Your task to perform on an android device: View the shopping cart on ebay. Add "bose soundsport free" to the cart on ebay Image 0: 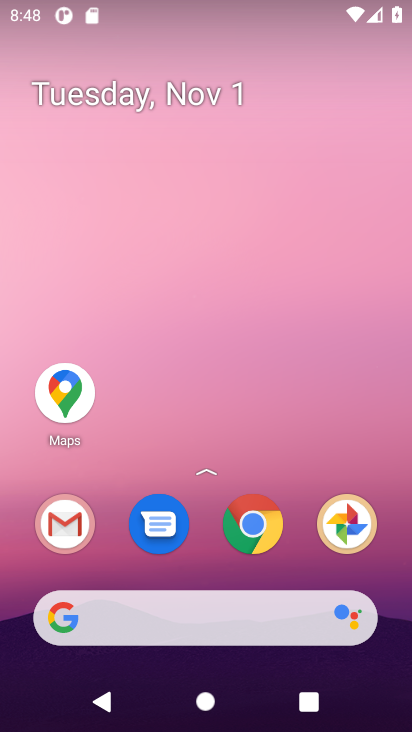
Step 0: press home button
Your task to perform on an android device: View the shopping cart on ebay. Add "bose soundsport free" to the cart on ebay Image 1: 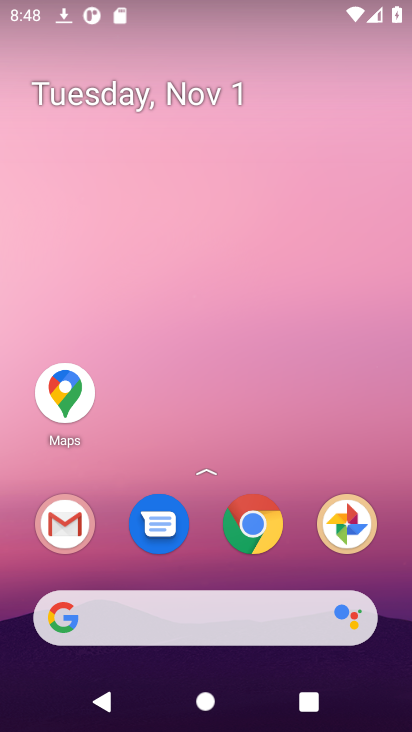
Step 1: click (92, 609)
Your task to perform on an android device: View the shopping cart on ebay. Add "bose soundsport free" to the cart on ebay Image 2: 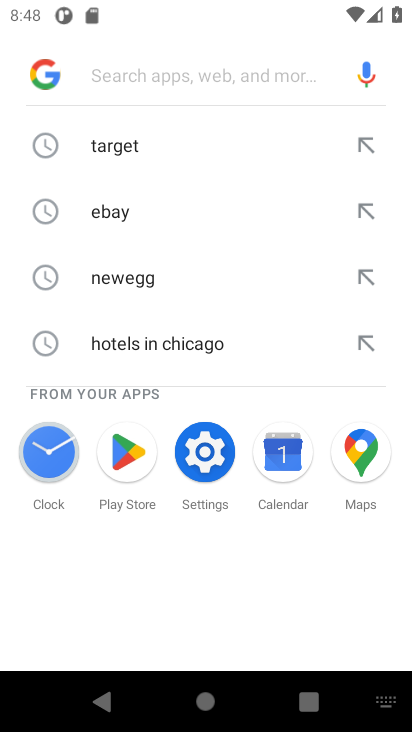
Step 2: click (132, 215)
Your task to perform on an android device: View the shopping cart on ebay. Add "bose soundsport free" to the cart on ebay Image 3: 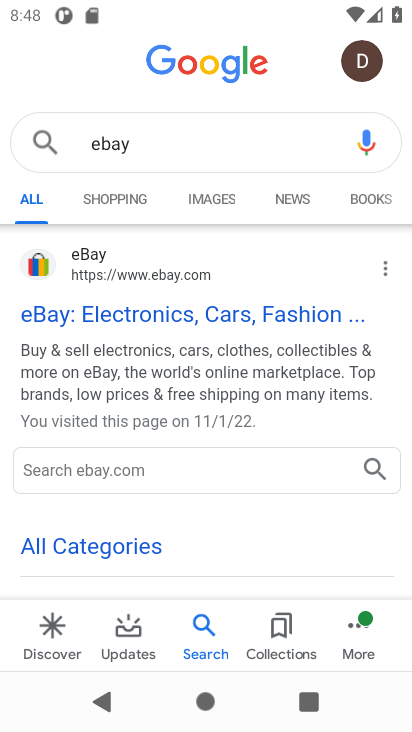
Step 3: click (230, 320)
Your task to perform on an android device: View the shopping cart on ebay. Add "bose soundsport free" to the cart on ebay Image 4: 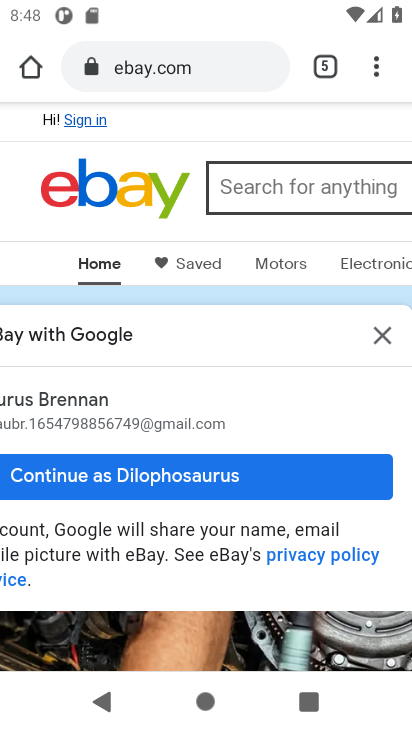
Step 4: click (374, 336)
Your task to perform on an android device: View the shopping cart on ebay. Add "bose soundsport free" to the cart on ebay Image 5: 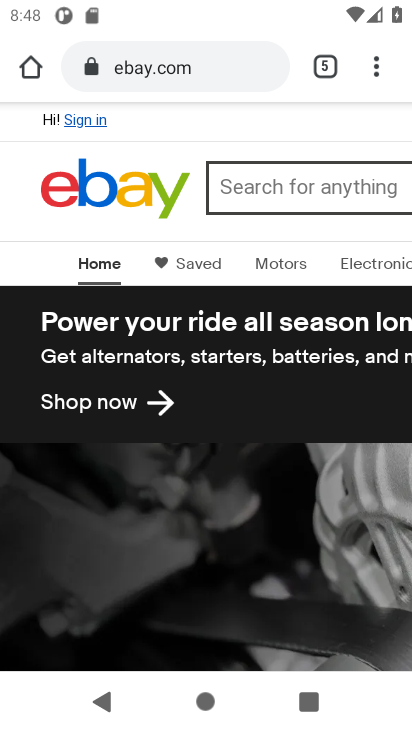
Step 5: drag from (346, 220) to (47, 211)
Your task to perform on an android device: View the shopping cart on ebay. Add "bose soundsport free" to the cart on ebay Image 6: 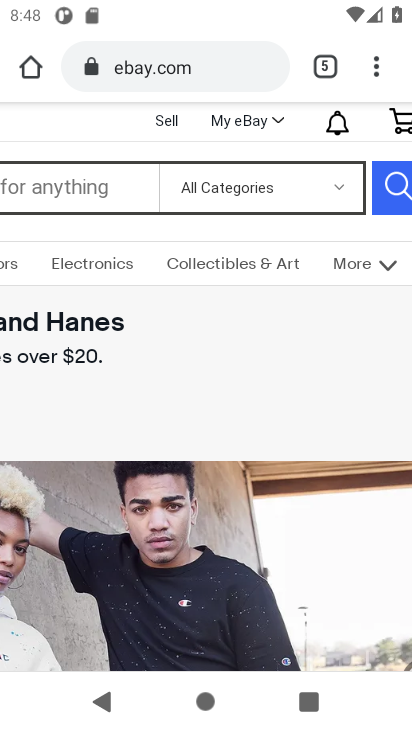
Step 6: click (399, 120)
Your task to perform on an android device: View the shopping cart on ebay. Add "bose soundsport free" to the cart on ebay Image 7: 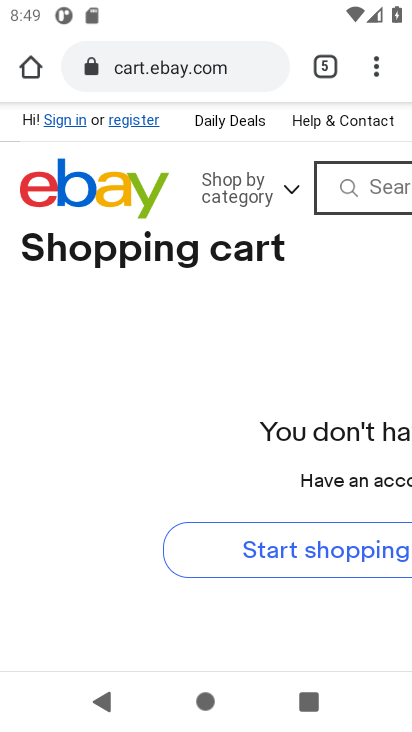
Step 7: click (361, 189)
Your task to perform on an android device: View the shopping cart on ebay. Add "bose soundsport free" to the cart on ebay Image 8: 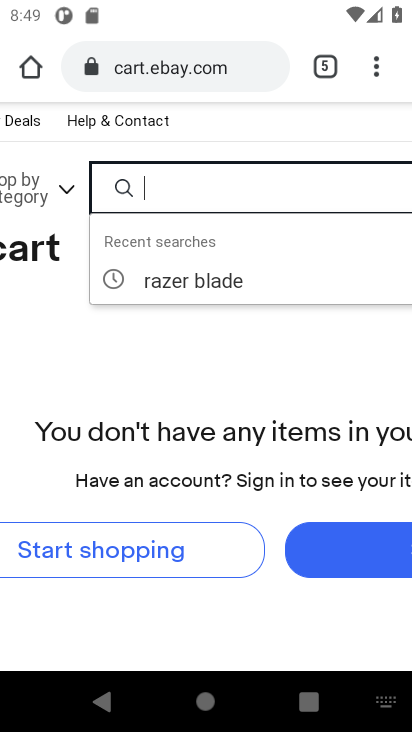
Step 8: type "bose soundsport free"
Your task to perform on an android device: View the shopping cart on ebay. Add "bose soundsport free" to the cart on ebay Image 9: 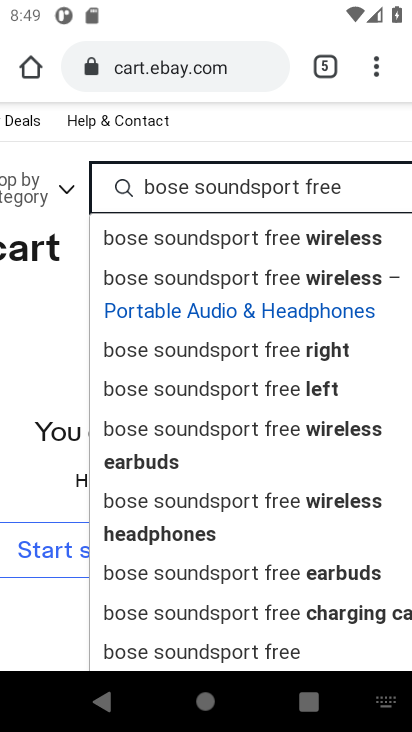
Step 9: press enter
Your task to perform on an android device: View the shopping cart on ebay. Add "bose soundsport free" to the cart on ebay Image 10: 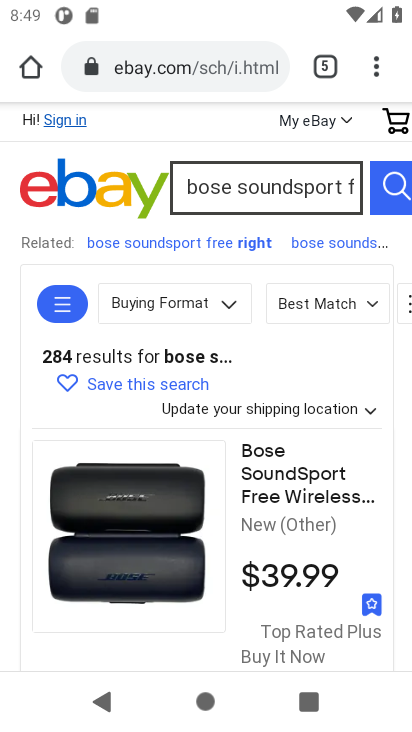
Step 10: click (306, 483)
Your task to perform on an android device: View the shopping cart on ebay. Add "bose soundsport free" to the cart on ebay Image 11: 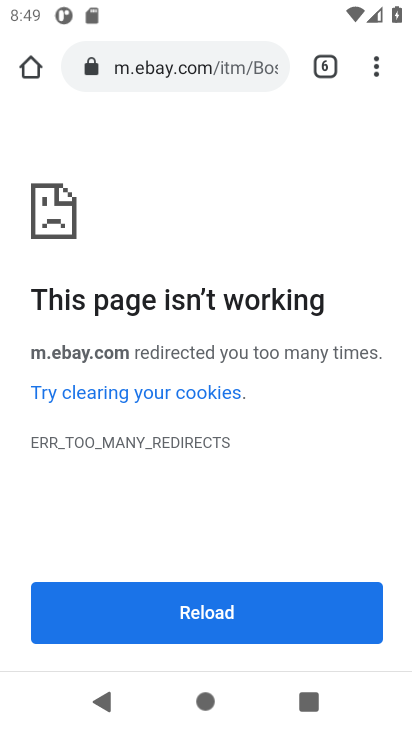
Step 11: task complete